Your task to perform on an android device: Open Chrome and go to settings Image 0: 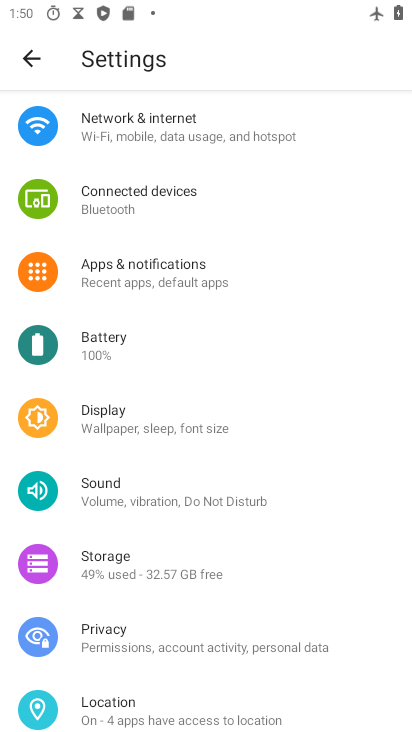
Step 0: press home button
Your task to perform on an android device: Open Chrome and go to settings Image 1: 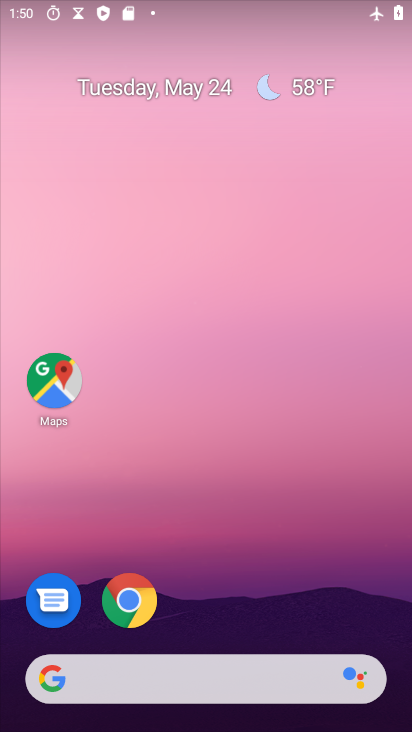
Step 1: click (131, 600)
Your task to perform on an android device: Open Chrome and go to settings Image 2: 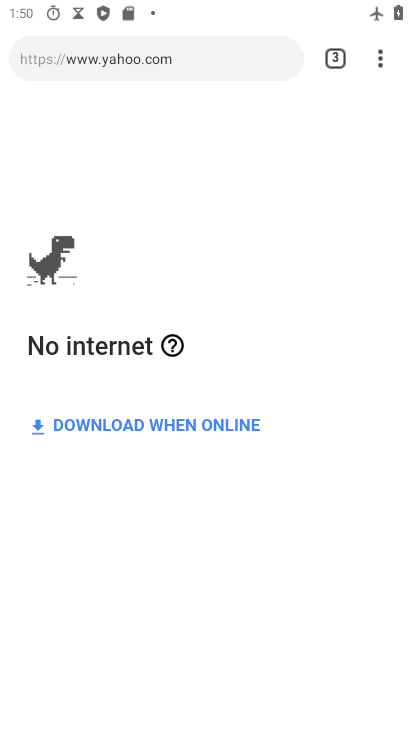
Step 2: click (382, 55)
Your task to perform on an android device: Open Chrome and go to settings Image 3: 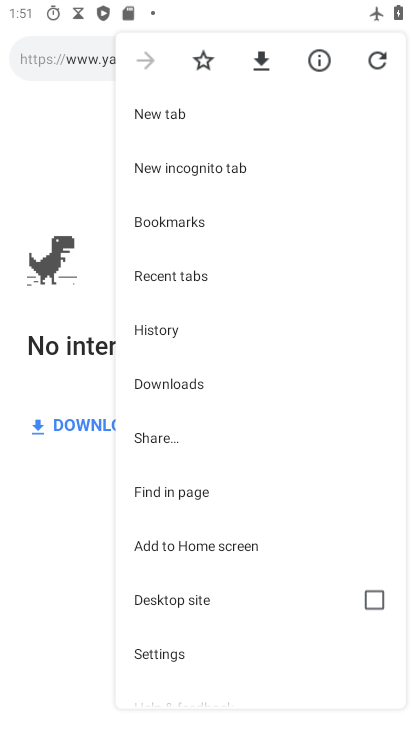
Step 3: click (212, 656)
Your task to perform on an android device: Open Chrome and go to settings Image 4: 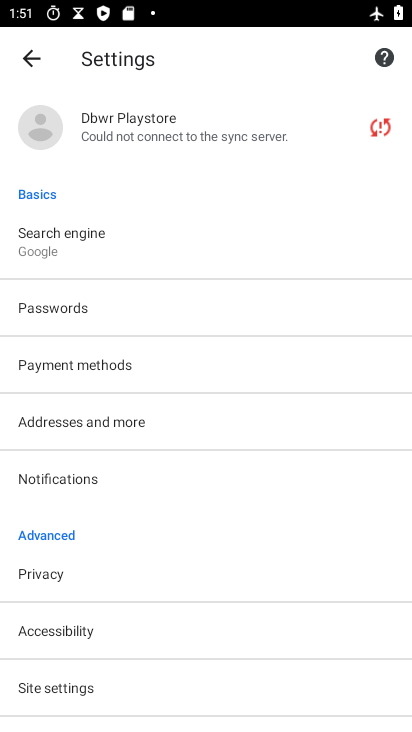
Step 4: task complete